Your task to perform on an android device: refresh tabs in the chrome app Image 0: 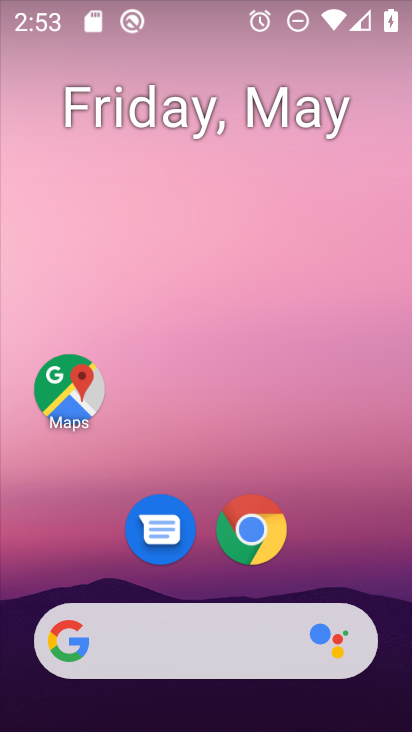
Step 0: drag from (393, 661) to (368, 241)
Your task to perform on an android device: refresh tabs in the chrome app Image 1: 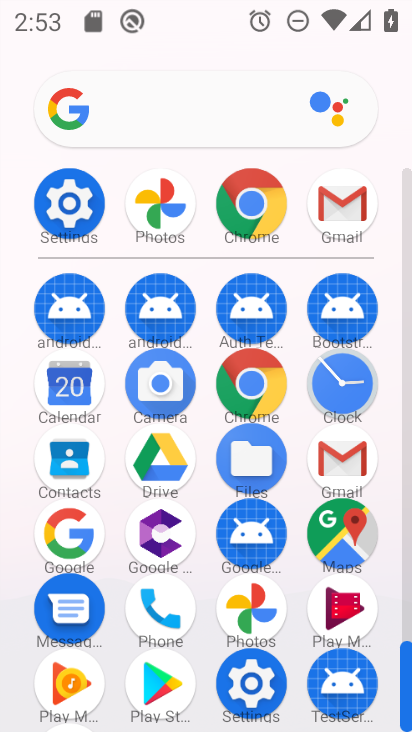
Step 1: click (242, 210)
Your task to perform on an android device: refresh tabs in the chrome app Image 2: 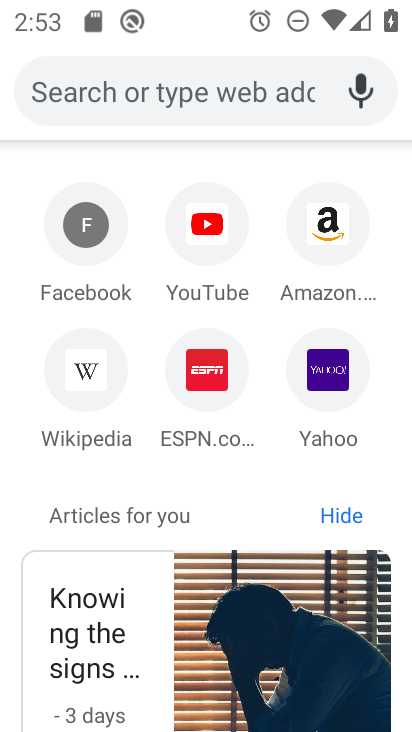
Step 2: drag from (388, 75) to (411, 447)
Your task to perform on an android device: refresh tabs in the chrome app Image 3: 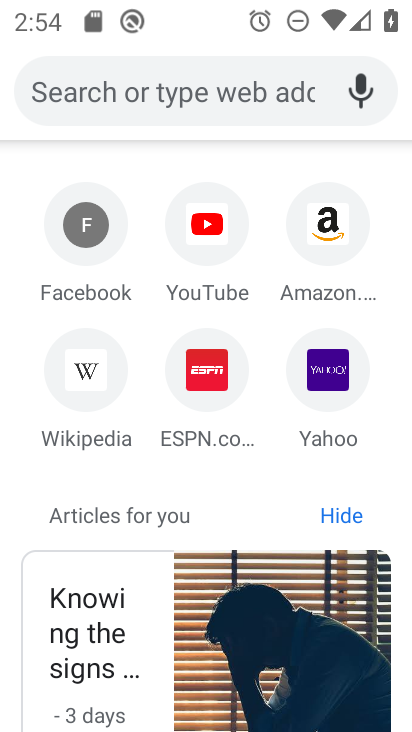
Step 3: drag from (396, 91) to (409, 501)
Your task to perform on an android device: refresh tabs in the chrome app Image 4: 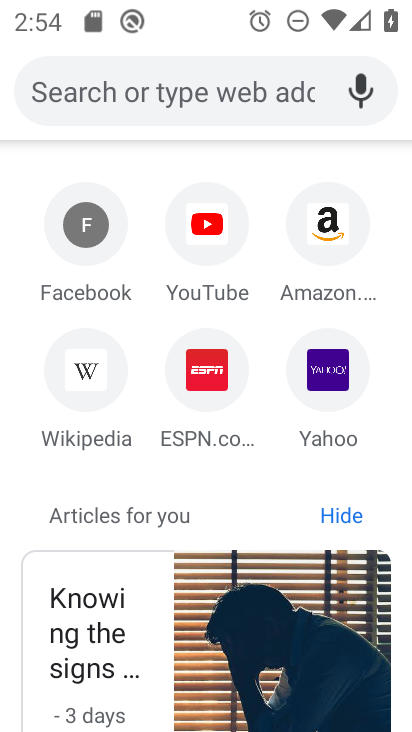
Step 4: drag from (392, 131) to (386, 459)
Your task to perform on an android device: refresh tabs in the chrome app Image 5: 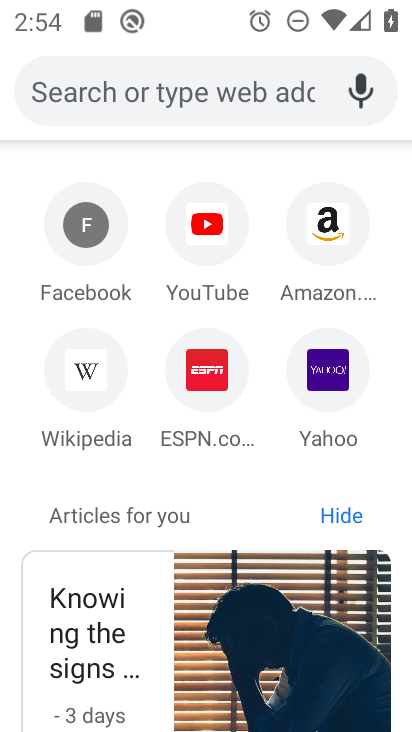
Step 5: drag from (290, 88) to (315, 423)
Your task to perform on an android device: refresh tabs in the chrome app Image 6: 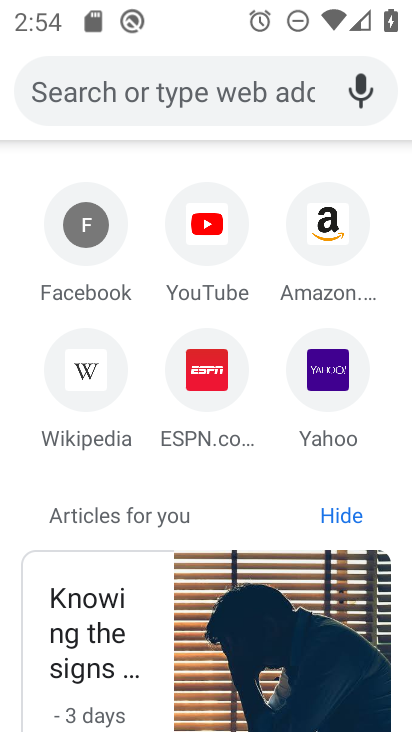
Step 6: drag from (206, 36) to (278, 549)
Your task to perform on an android device: refresh tabs in the chrome app Image 7: 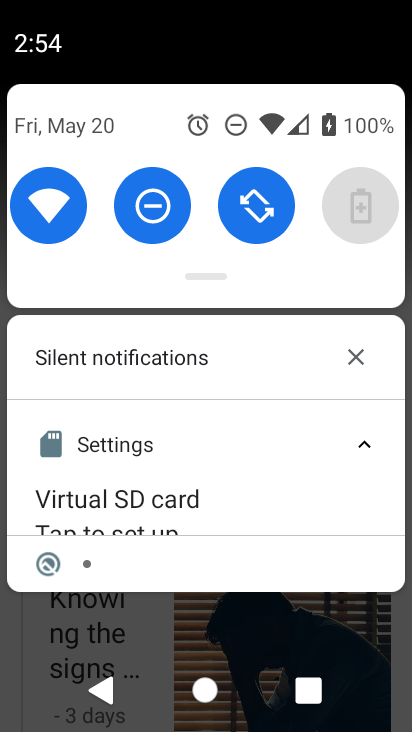
Step 7: click (350, 350)
Your task to perform on an android device: refresh tabs in the chrome app Image 8: 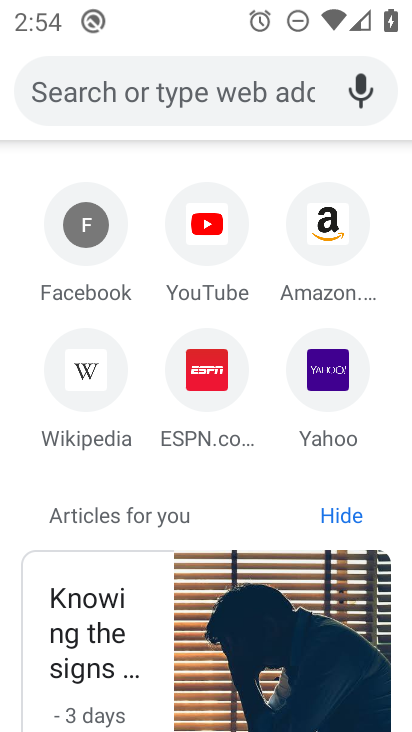
Step 8: task complete